Your task to perform on an android device: delete location history Image 0: 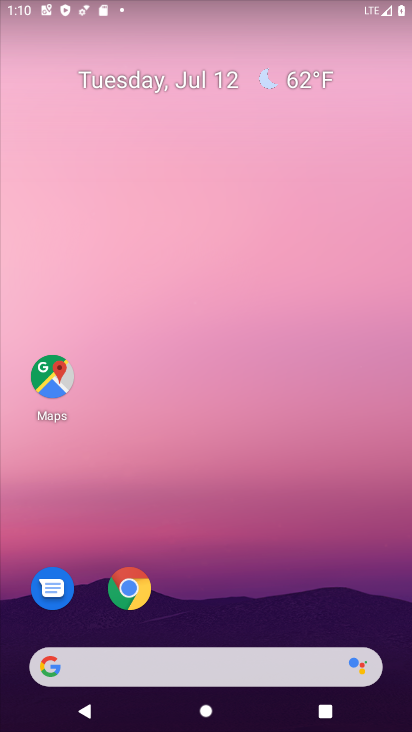
Step 0: click (59, 367)
Your task to perform on an android device: delete location history Image 1: 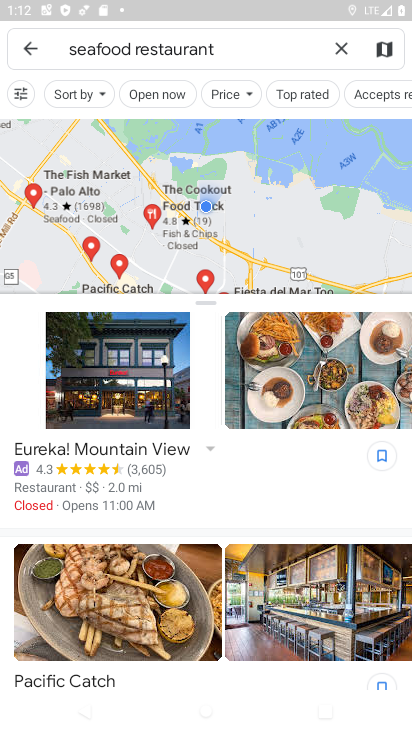
Step 1: click (27, 49)
Your task to perform on an android device: delete location history Image 2: 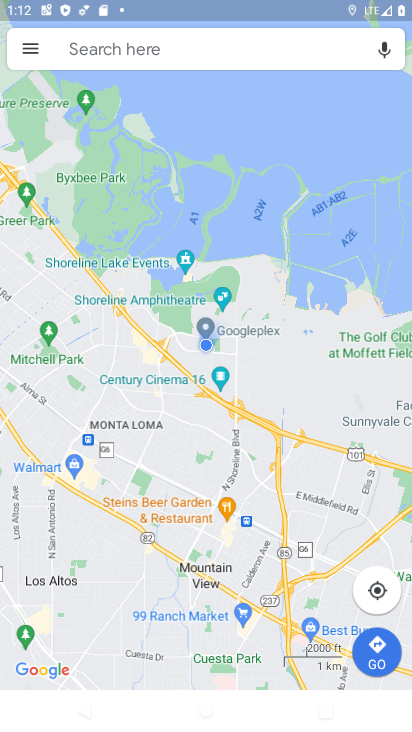
Step 2: click (27, 56)
Your task to perform on an android device: delete location history Image 3: 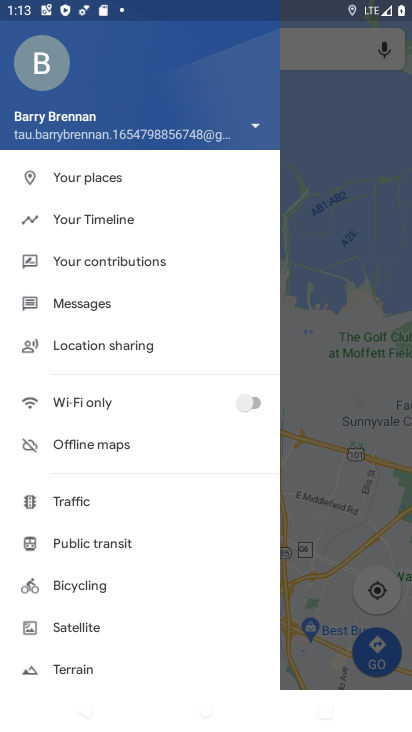
Step 3: click (120, 224)
Your task to perform on an android device: delete location history Image 4: 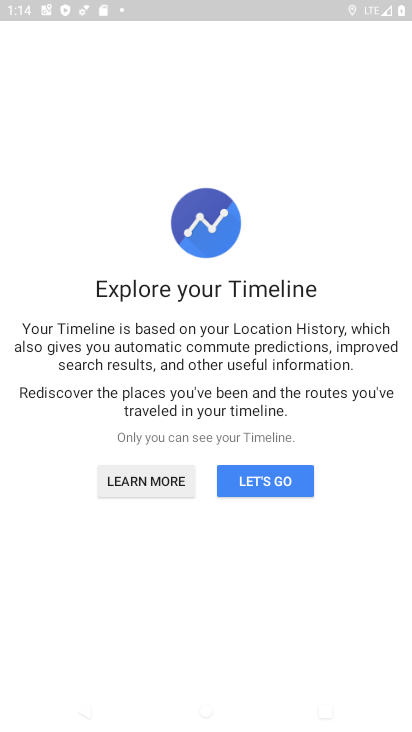
Step 4: click (251, 486)
Your task to perform on an android device: delete location history Image 5: 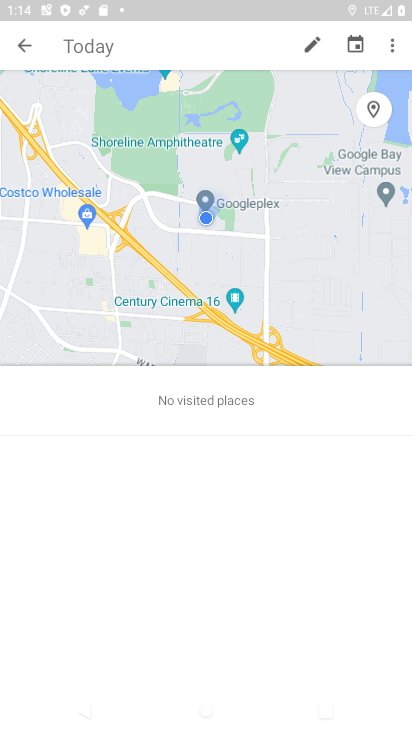
Step 5: click (390, 42)
Your task to perform on an android device: delete location history Image 6: 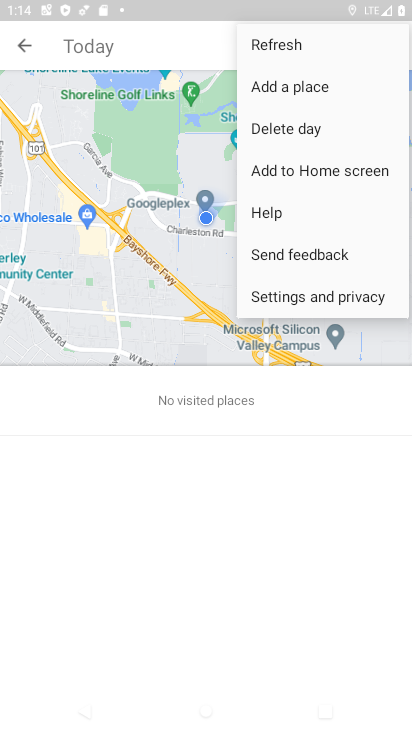
Step 6: click (320, 299)
Your task to perform on an android device: delete location history Image 7: 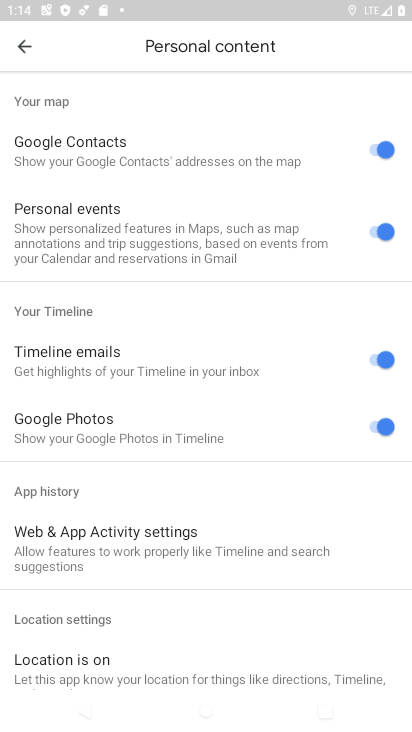
Step 7: drag from (237, 634) to (280, 84)
Your task to perform on an android device: delete location history Image 8: 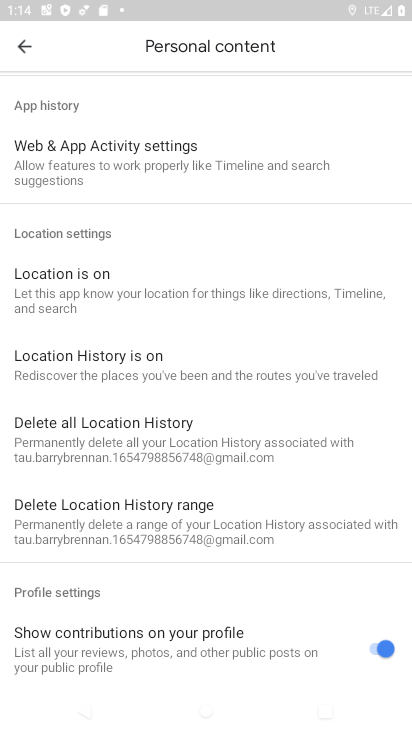
Step 8: click (191, 427)
Your task to perform on an android device: delete location history Image 9: 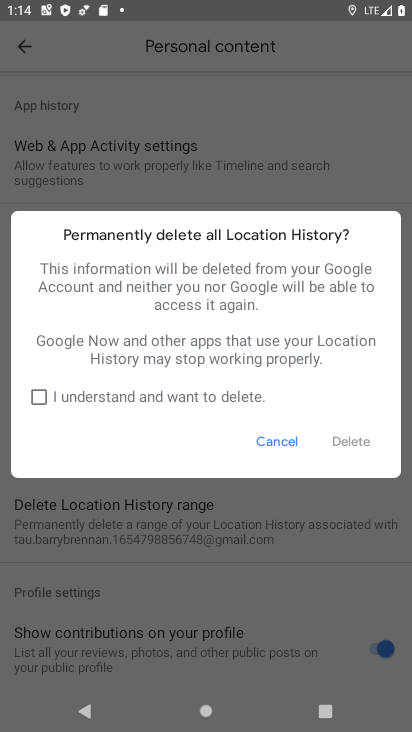
Step 9: click (139, 389)
Your task to perform on an android device: delete location history Image 10: 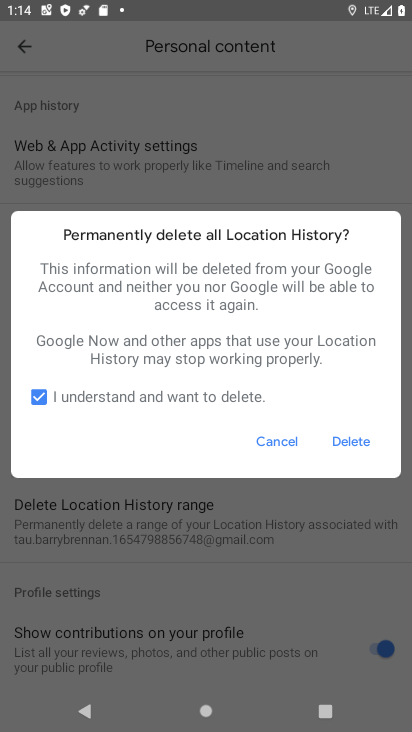
Step 10: click (365, 441)
Your task to perform on an android device: delete location history Image 11: 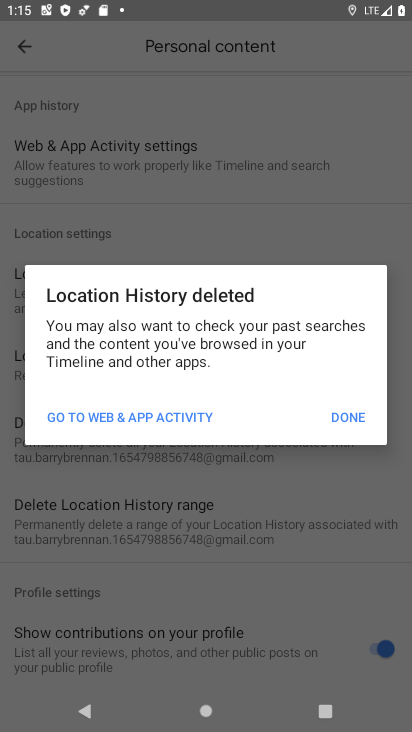
Step 11: click (345, 426)
Your task to perform on an android device: delete location history Image 12: 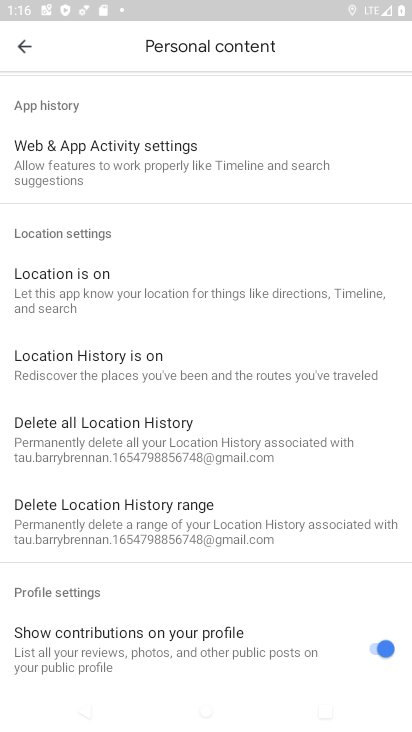
Step 12: click (213, 448)
Your task to perform on an android device: delete location history Image 13: 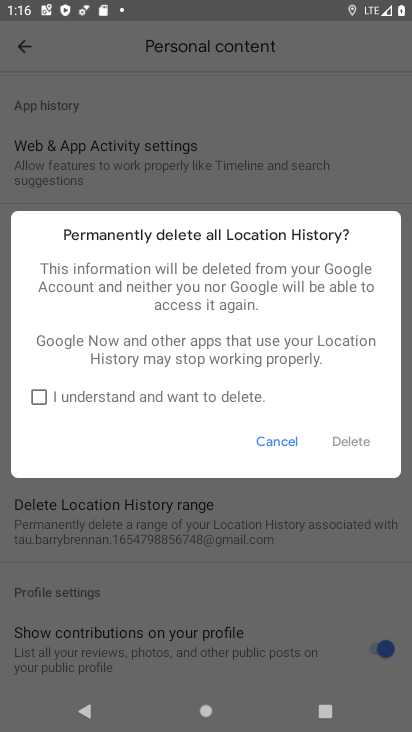
Step 13: click (152, 393)
Your task to perform on an android device: delete location history Image 14: 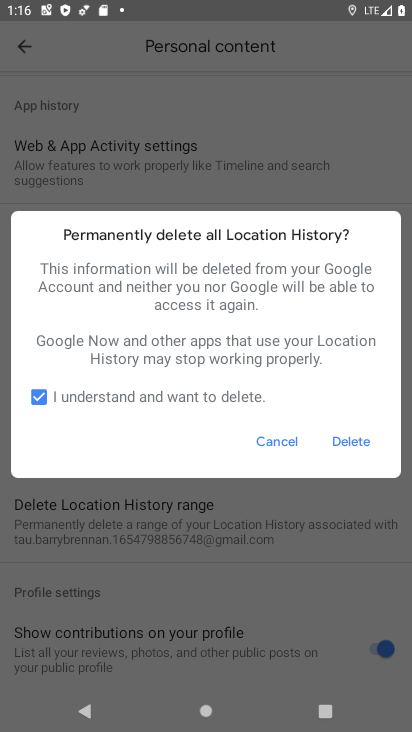
Step 14: click (351, 438)
Your task to perform on an android device: delete location history Image 15: 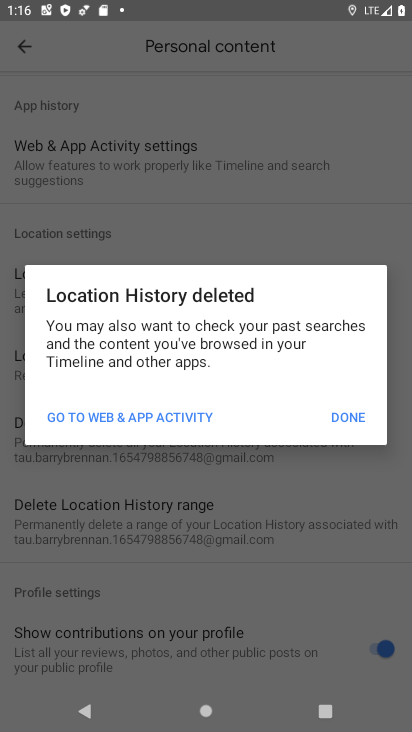
Step 15: click (361, 418)
Your task to perform on an android device: delete location history Image 16: 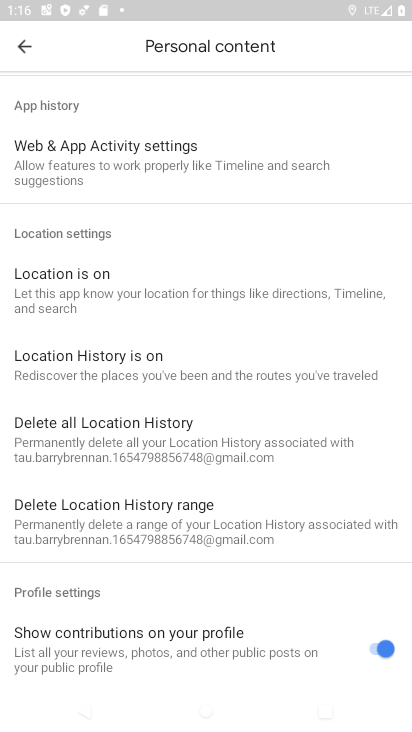
Step 16: task complete